Your task to perform on an android device: Open battery settings Image 0: 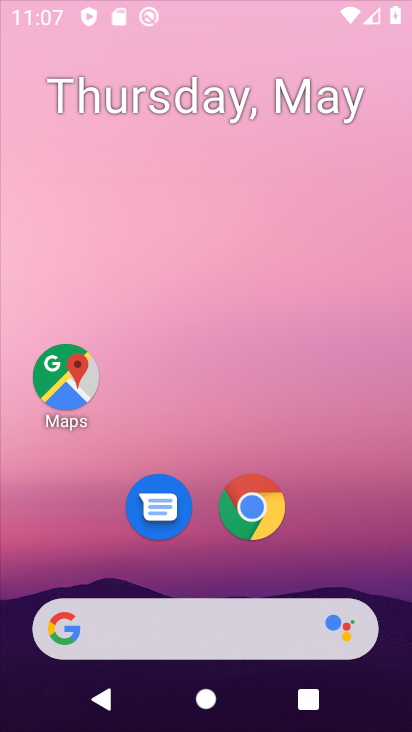
Step 0: click (253, 80)
Your task to perform on an android device: Open battery settings Image 1: 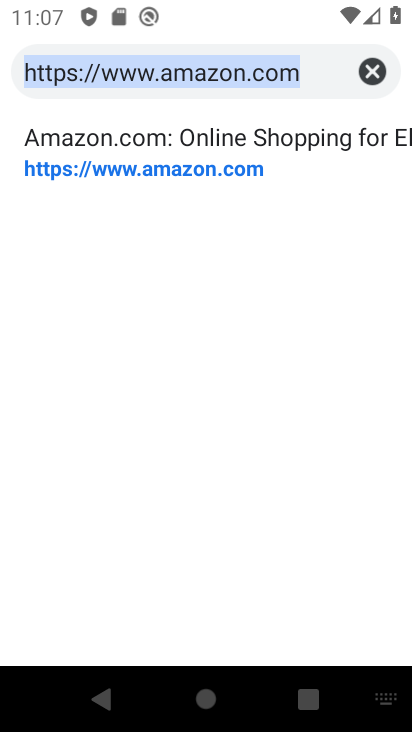
Step 1: press home button
Your task to perform on an android device: Open battery settings Image 2: 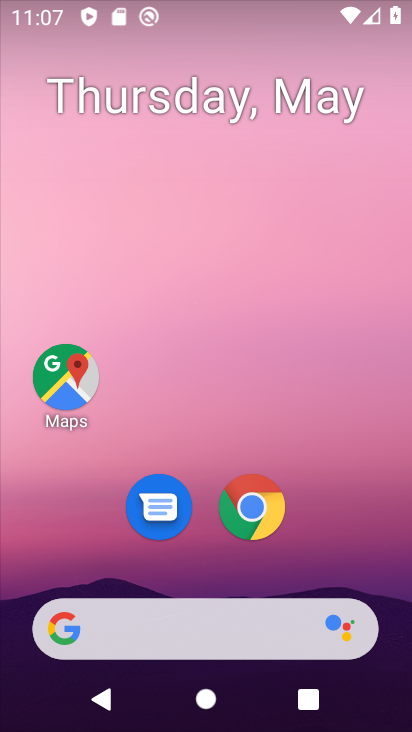
Step 2: drag from (248, 665) to (351, 38)
Your task to perform on an android device: Open battery settings Image 3: 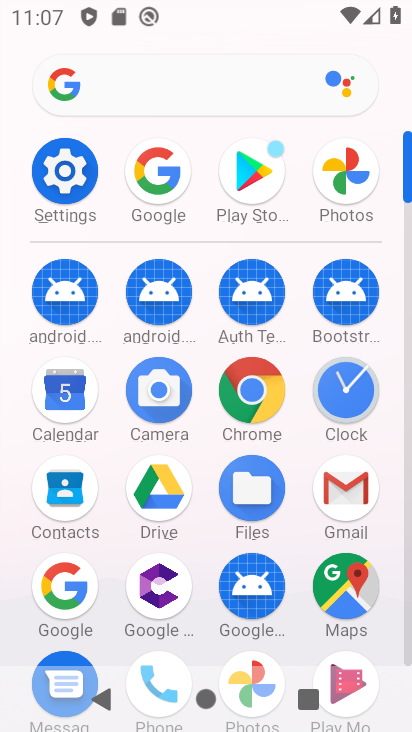
Step 3: click (86, 195)
Your task to perform on an android device: Open battery settings Image 4: 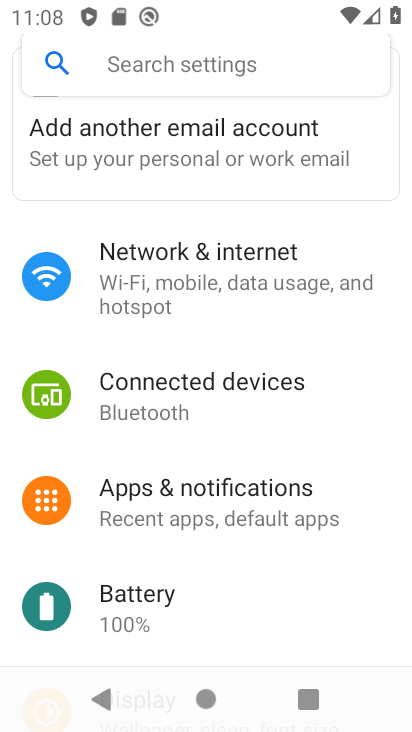
Step 4: click (168, 603)
Your task to perform on an android device: Open battery settings Image 5: 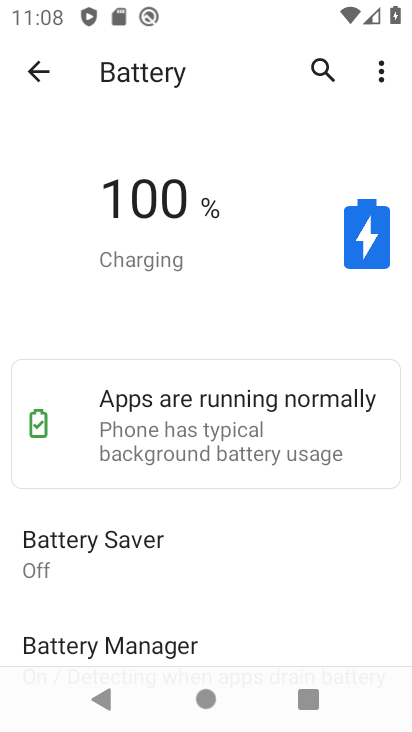
Step 5: task complete